Your task to perform on an android device: turn off sleep mode Image 0: 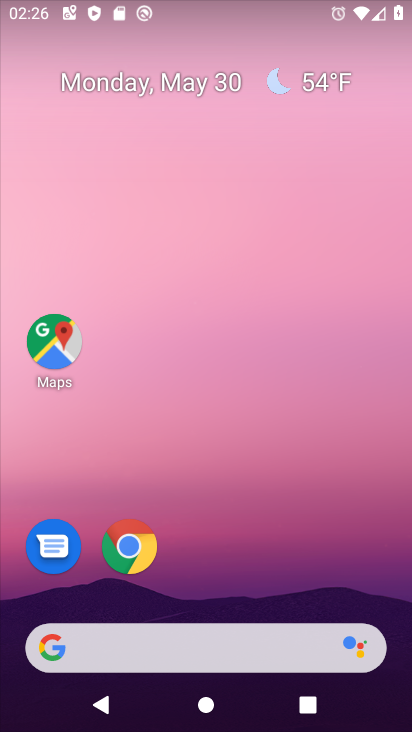
Step 0: drag from (233, 607) to (261, 1)
Your task to perform on an android device: turn off sleep mode Image 1: 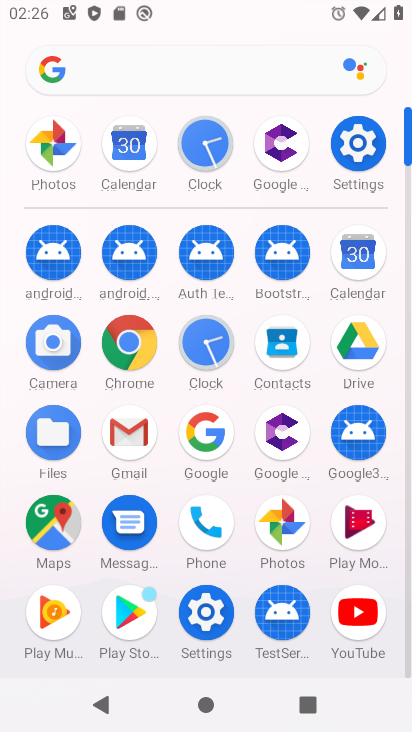
Step 1: click (362, 136)
Your task to perform on an android device: turn off sleep mode Image 2: 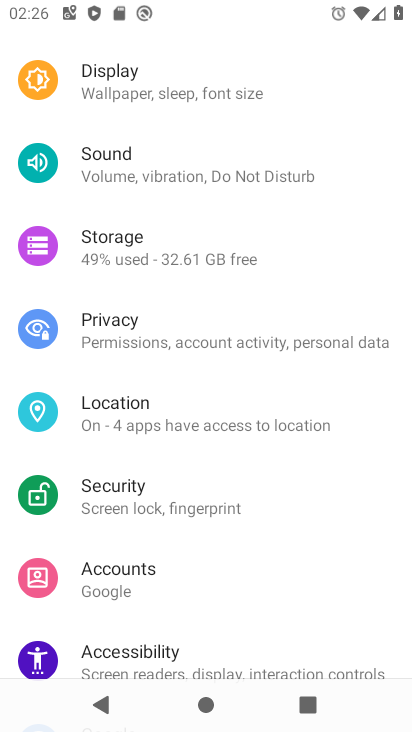
Step 2: click (159, 79)
Your task to perform on an android device: turn off sleep mode Image 3: 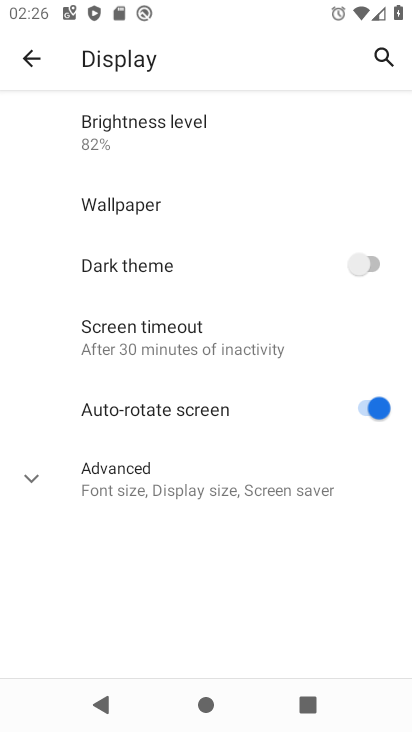
Step 3: click (35, 470)
Your task to perform on an android device: turn off sleep mode Image 4: 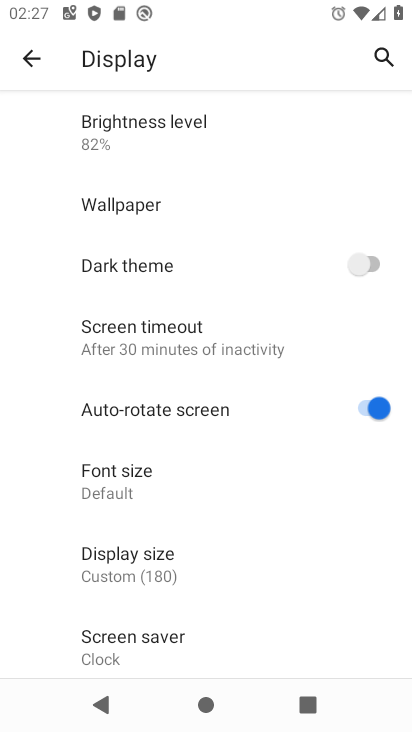
Step 4: task complete